Your task to perform on an android device: Go to internet settings Image 0: 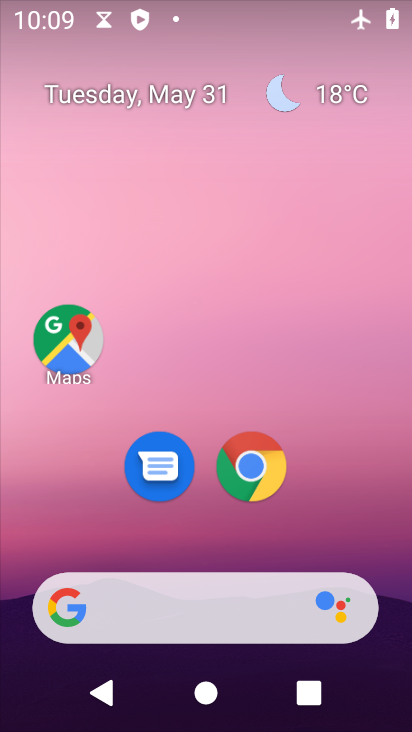
Step 0: drag from (370, 558) to (199, 3)
Your task to perform on an android device: Go to internet settings Image 1: 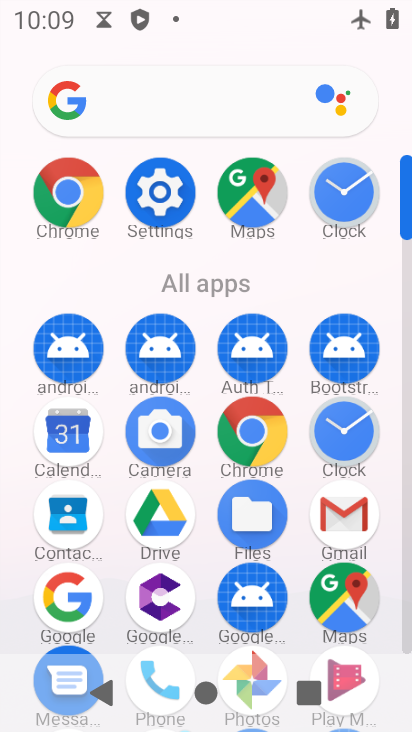
Step 1: drag from (11, 596) to (4, 243)
Your task to perform on an android device: Go to internet settings Image 2: 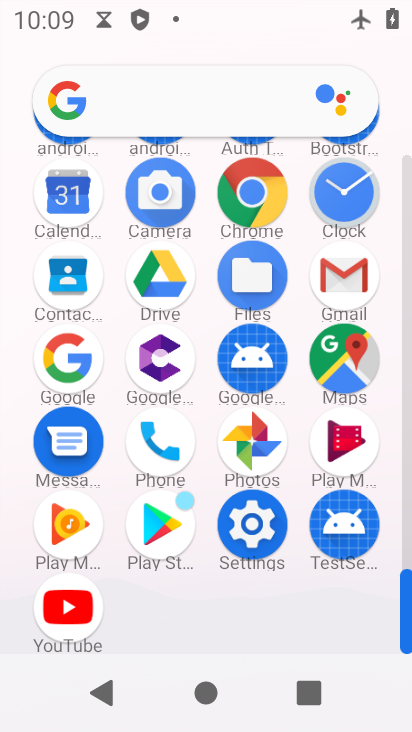
Step 2: click (249, 524)
Your task to perform on an android device: Go to internet settings Image 3: 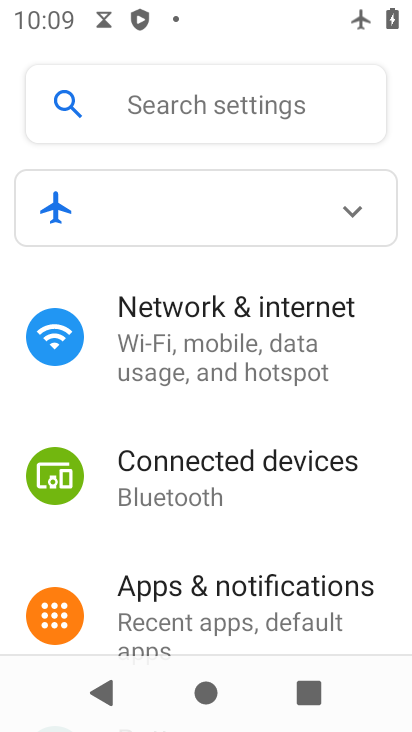
Step 3: click (255, 338)
Your task to perform on an android device: Go to internet settings Image 4: 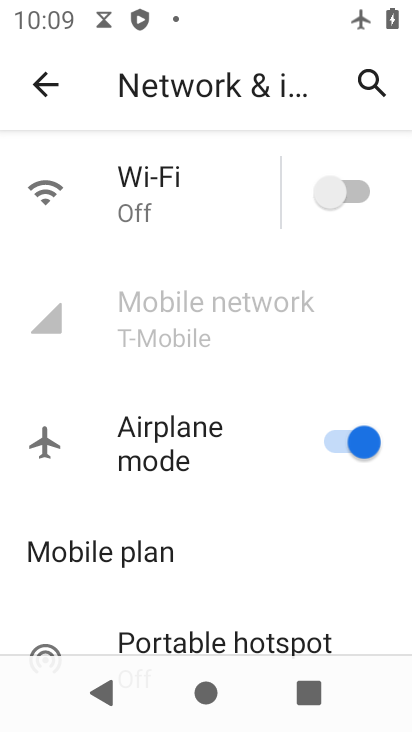
Step 4: drag from (215, 490) to (216, 179)
Your task to perform on an android device: Go to internet settings Image 5: 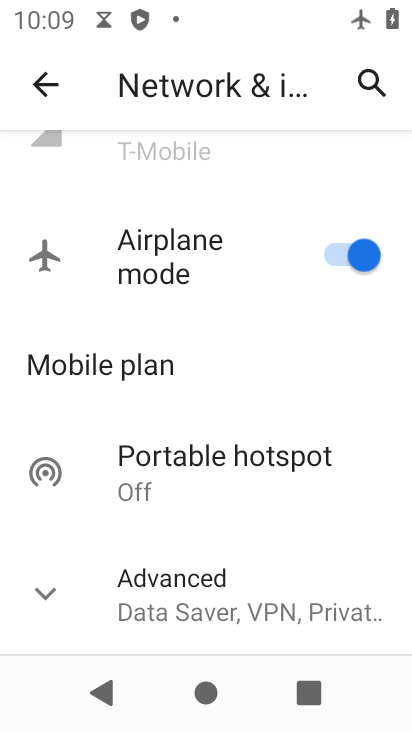
Step 5: drag from (249, 566) to (223, 190)
Your task to perform on an android device: Go to internet settings Image 6: 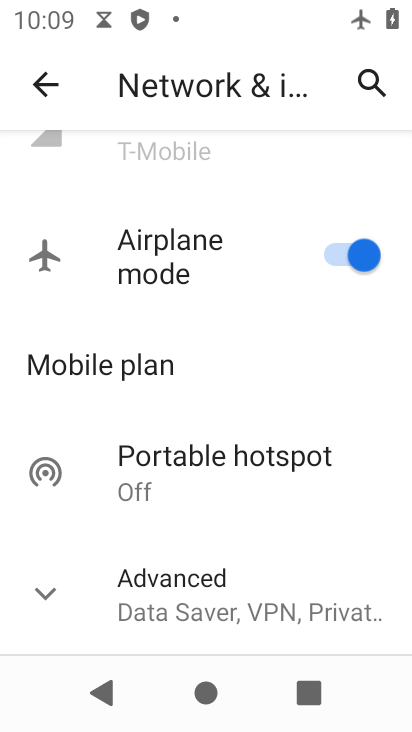
Step 6: click (25, 572)
Your task to perform on an android device: Go to internet settings Image 7: 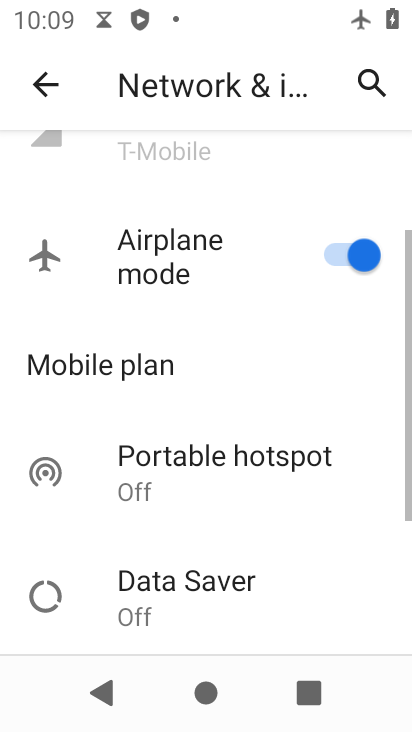
Step 7: task complete